Your task to perform on an android device: Show me the alarms in the clock app Image 0: 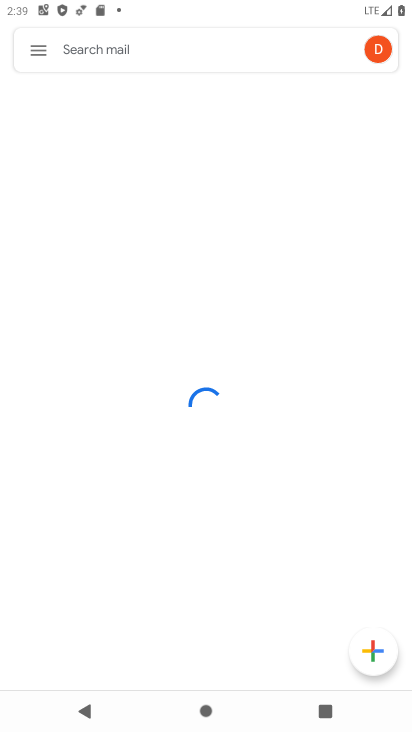
Step 0: press home button
Your task to perform on an android device: Show me the alarms in the clock app Image 1: 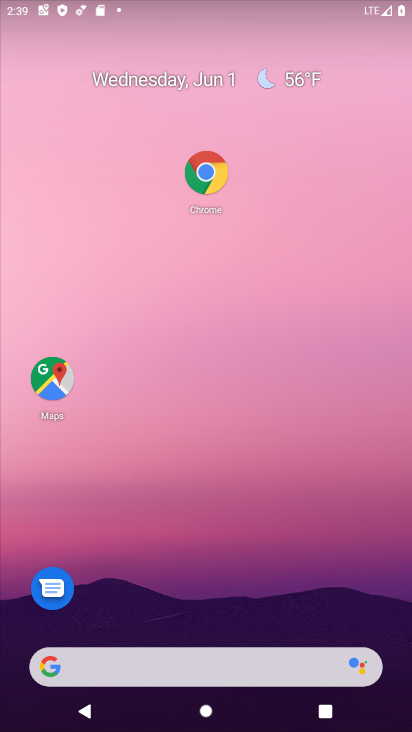
Step 1: drag from (228, 608) to (284, 56)
Your task to perform on an android device: Show me the alarms in the clock app Image 2: 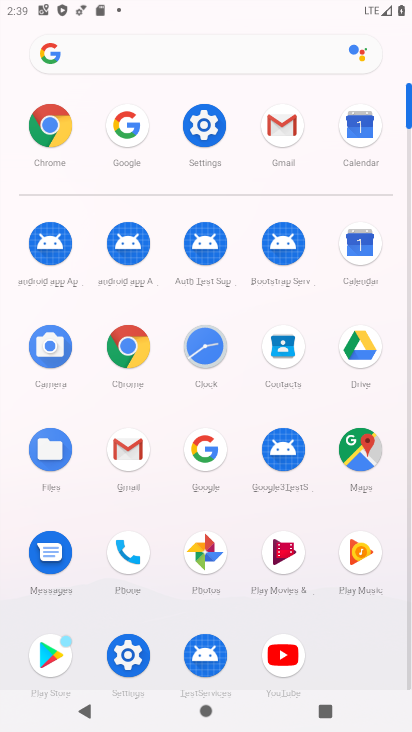
Step 2: click (204, 352)
Your task to perform on an android device: Show me the alarms in the clock app Image 3: 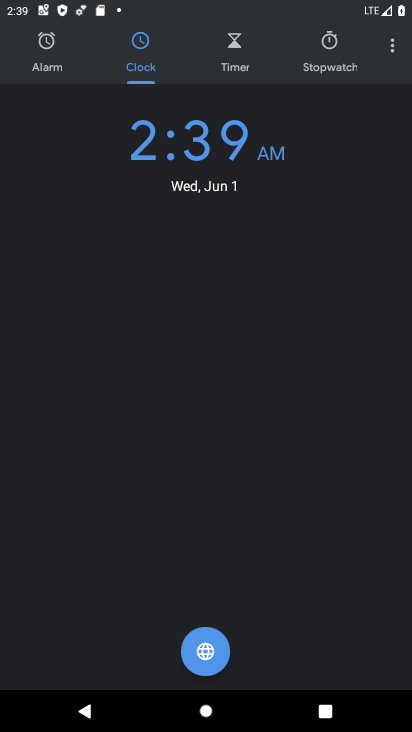
Step 3: click (50, 63)
Your task to perform on an android device: Show me the alarms in the clock app Image 4: 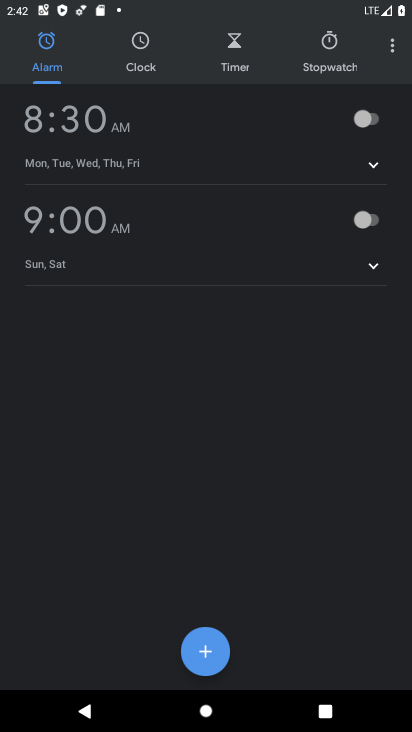
Step 4: task complete